Your task to perform on an android device: check storage Image 0: 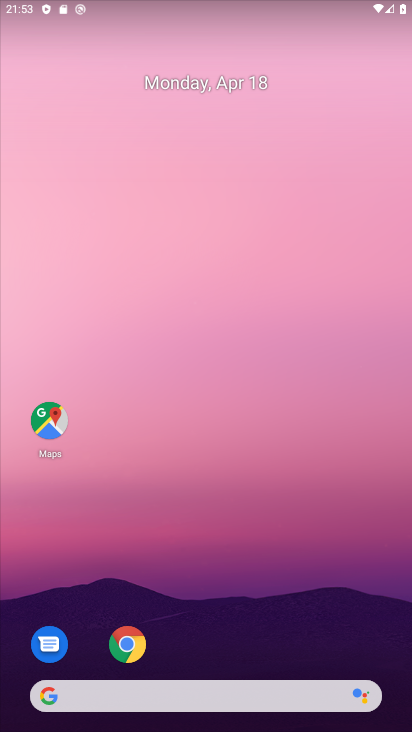
Step 0: drag from (238, 660) to (296, 8)
Your task to perform on an android device: check storage Image 1: 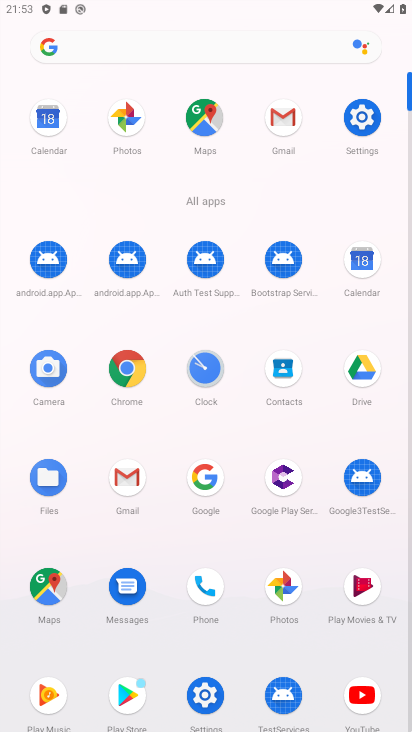
Step 1: click (202, 688)
Your task to perform on an android device: check storage Image 2: 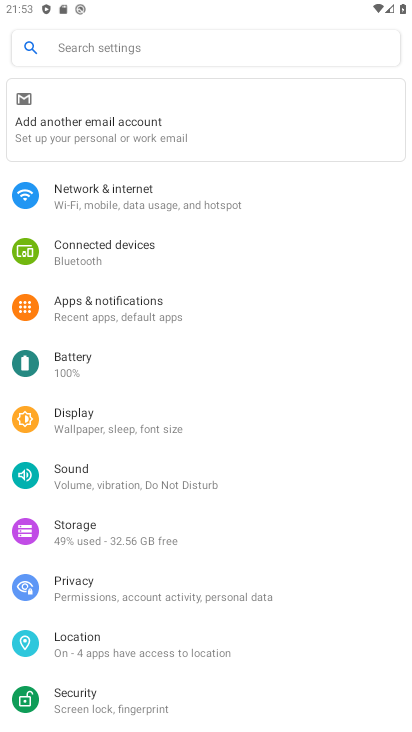
Step 2: click (128, 538)
Your task to perform on an android device: check storage Image 3: 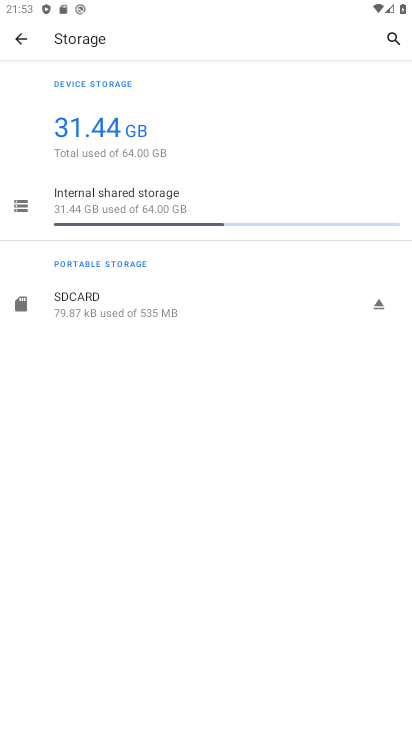
Step 3: click (159, 195)
Your task to perform on an android device: check storage Image 4: 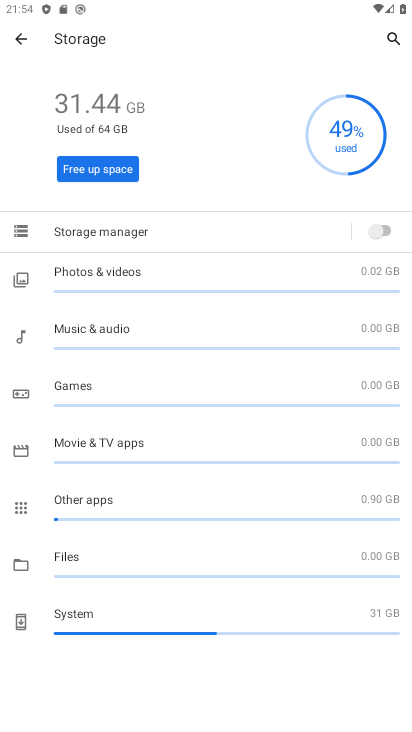
Step 4: task complete